Your task to perform on an android device: show emergency info Image 0: 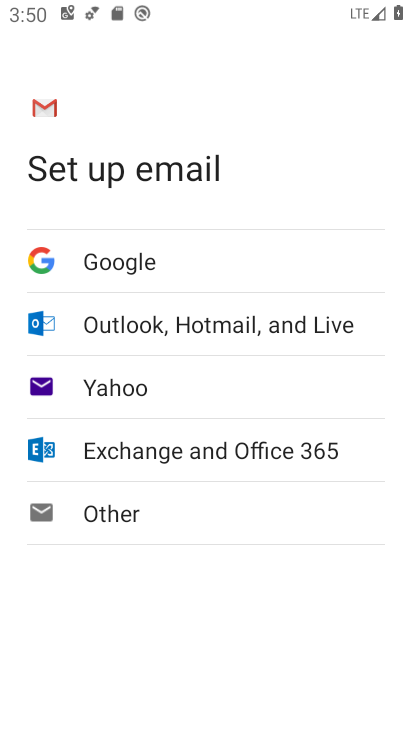
Step 0: drag from (216, 515) to (231, 120)
Your task to perform on an android device: show emergency info Image 1: 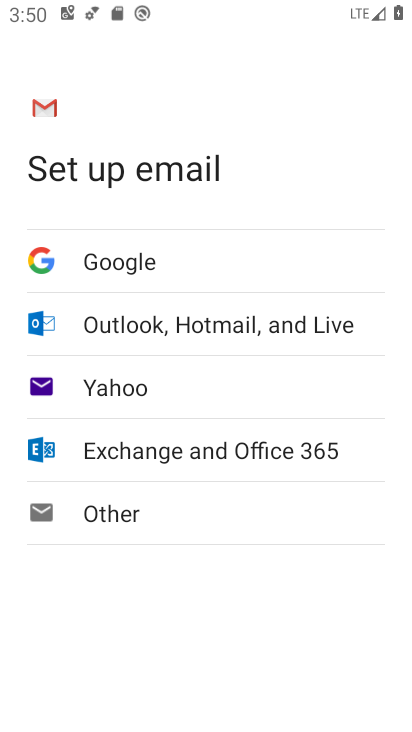
Step 1: press back button
Your task to perform on an android device: show emergency info Image 2: 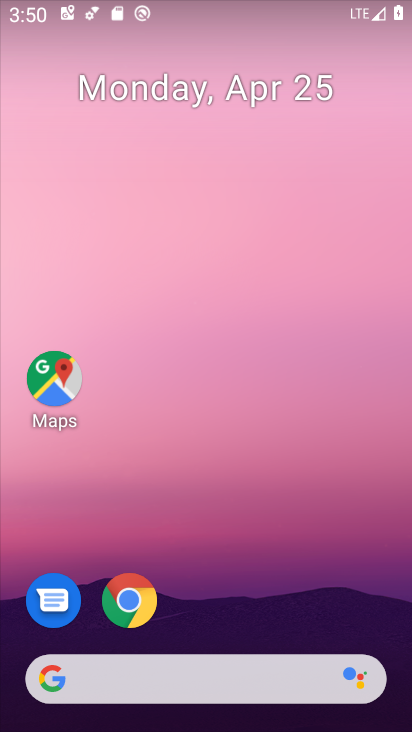
Step 2: drag from (250, 564) to (276, 23)
Your task to perform on an android device: show emergency info Image 3: 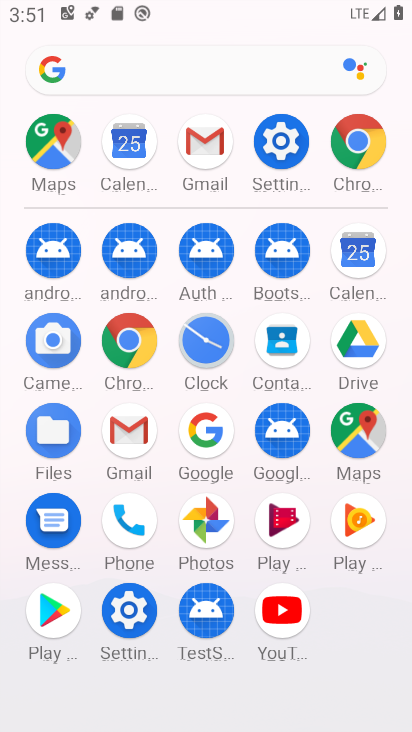
Step 3: click (129, 605)
Your task to perform on an android device: show emergency info Image 4: 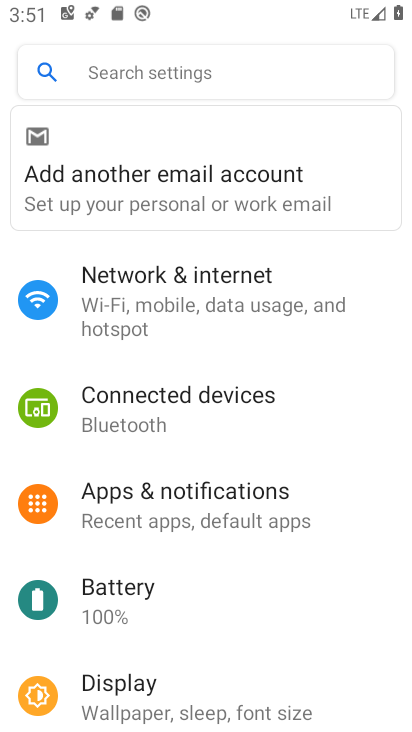
Step 4: drag from (261, 552) to (276, 130)
Your task to perform on an android device: show emergency info Image 5: 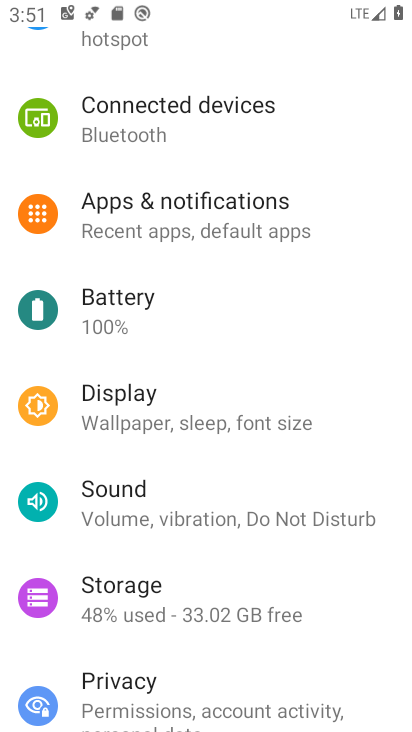
Step 5: drag from (267, 615) to (290, 98)
Your task to perform on an android device: show emergency info Image 6: 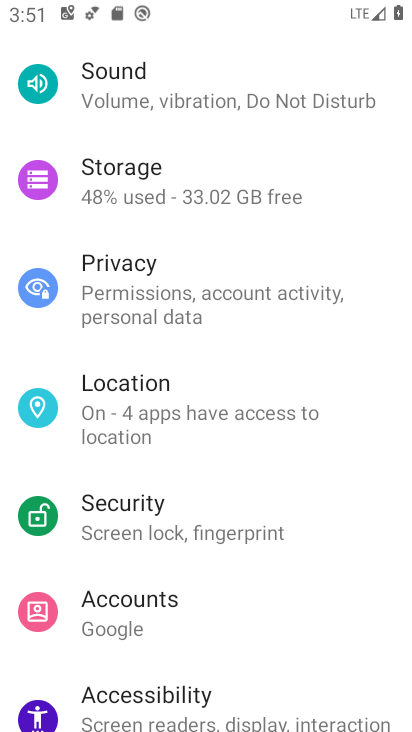
Step 6: drag from (276, 626) to (288, 130)
Your task to perform on an android device: show emergency info Image 7: 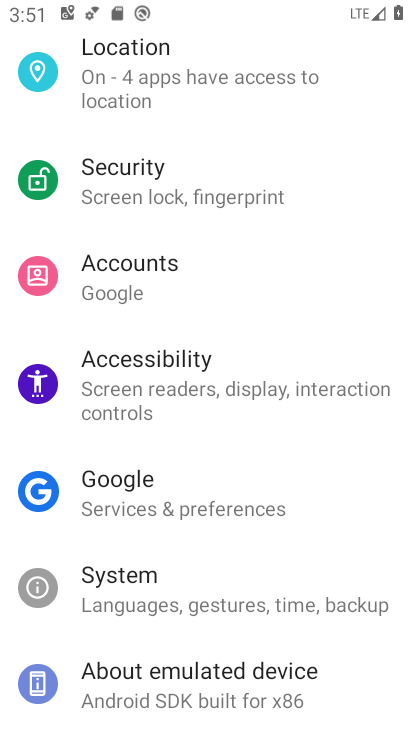
Step 7: drag from (274, 502) to (295, 131)
Your task to perform on an android device: show emergency info Image 8: 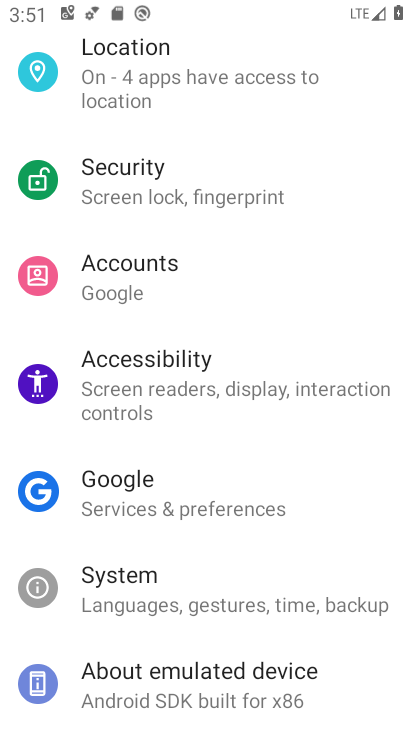
Step 8: click (201, 661)
Your task to perform on an android device: show emergency info Image 9: 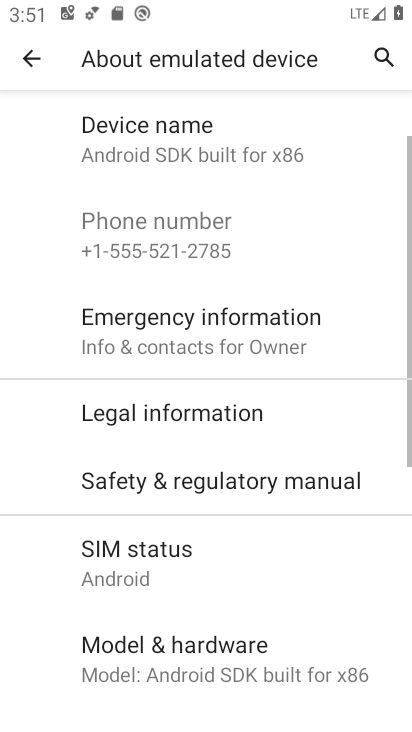
Step 9: click (271, 326)
Your task to perform on an android device: show emergency info Image 10: 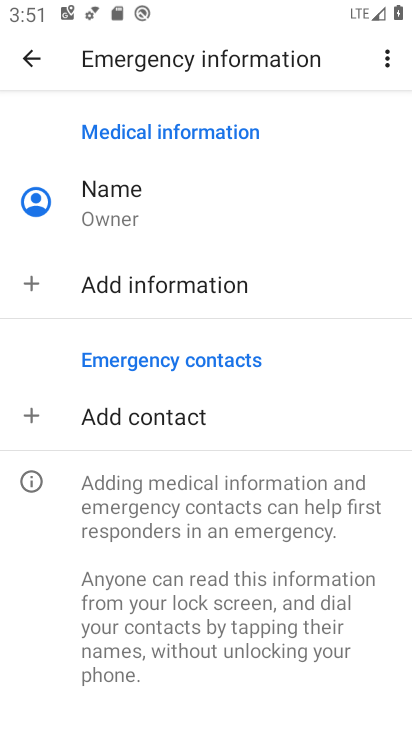
Step 10: task complete